Your task to perform on an android device: turn off sleep mode Image 0: 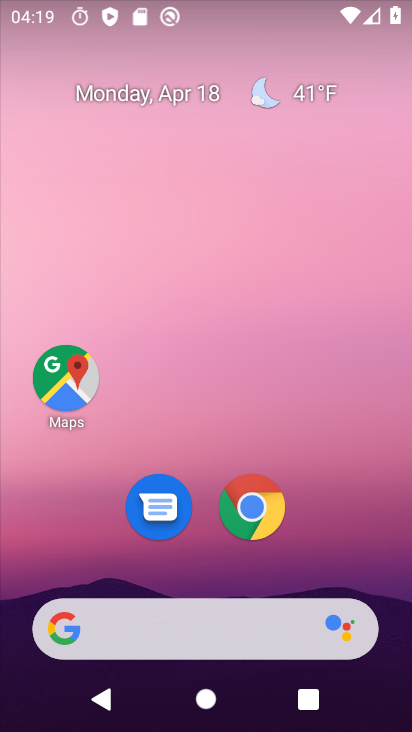
Step 0: drag from (337, 547) to (348, 33)
Your task to perform on an android device: turn off sleep mode Image 1: 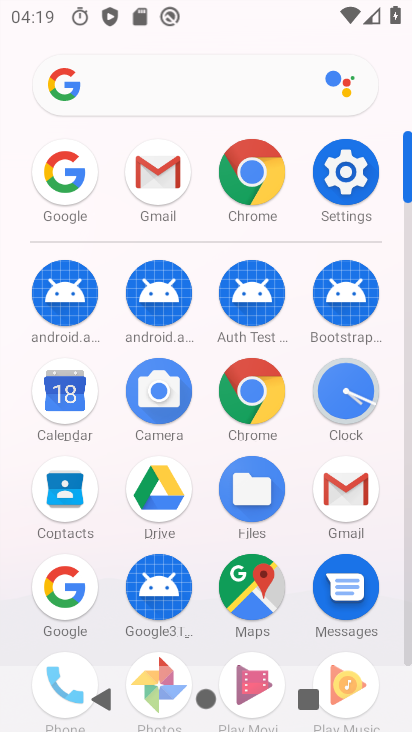
Step 1: click (340, 191)
Your task to perform on an android device: turn off sleep mode Image 2: 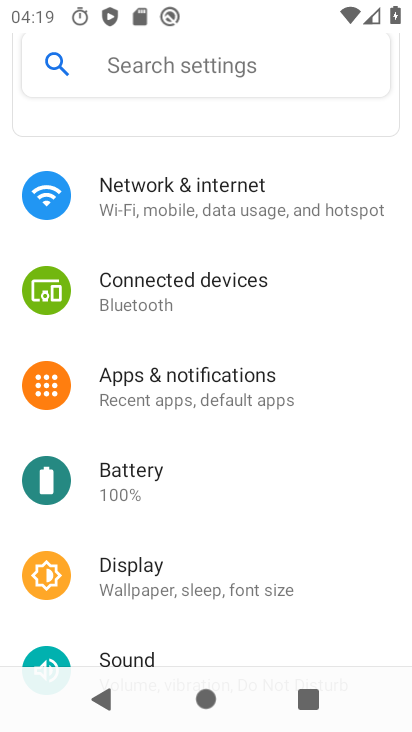
Step 2: click (212, 571)
Your task to perform on an android device: turn off sleep mode Image 3: 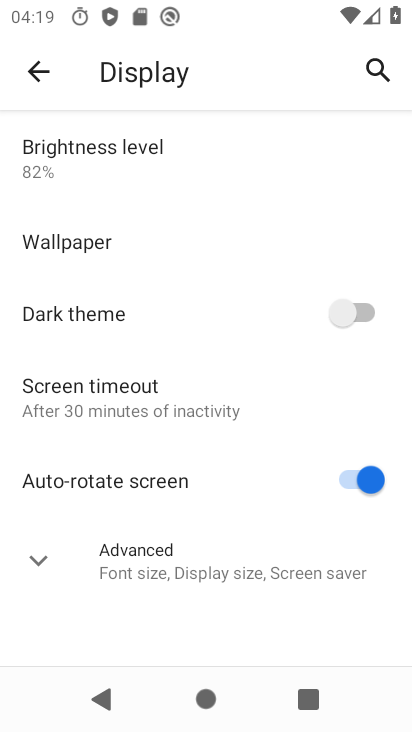
Step 3: click (216, 557)
Your task to perform on an android device: turn off sleep mode Image 4: 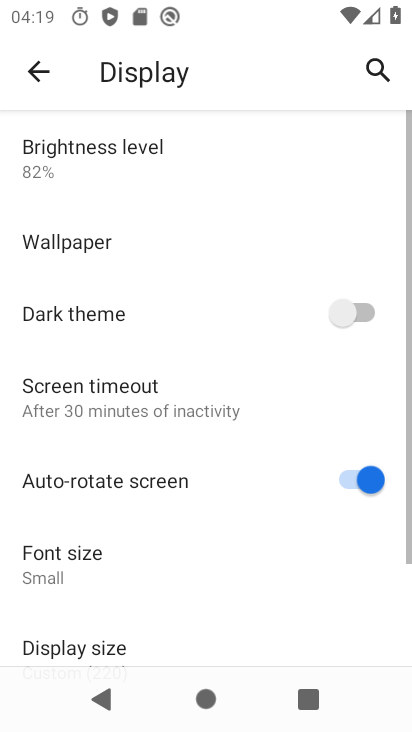
Step 4: drag from (216, 554) to (236, 192)
Your task to perform on an android device: turn off sleep mode Image 5: 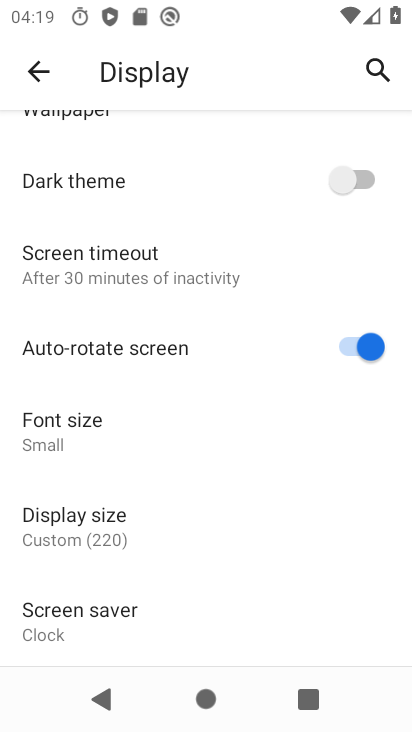
Step 5: click (38, 60)
Your task to perform on an android device: turn off sleep mode Image 6: 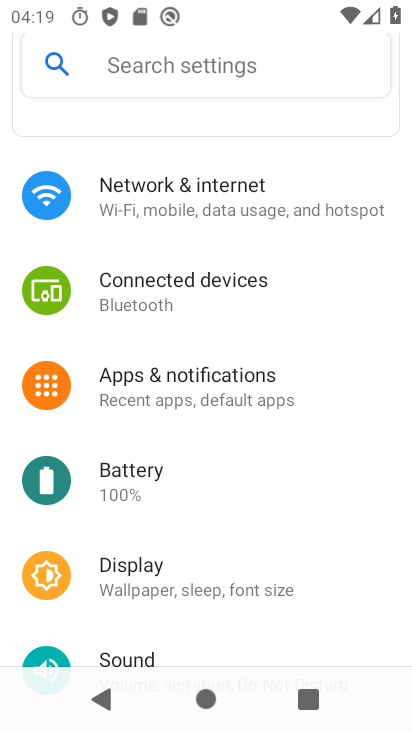
Step 6: task complete